Your task to perform on an android device: add a label to a message in the gmail app Image 0: 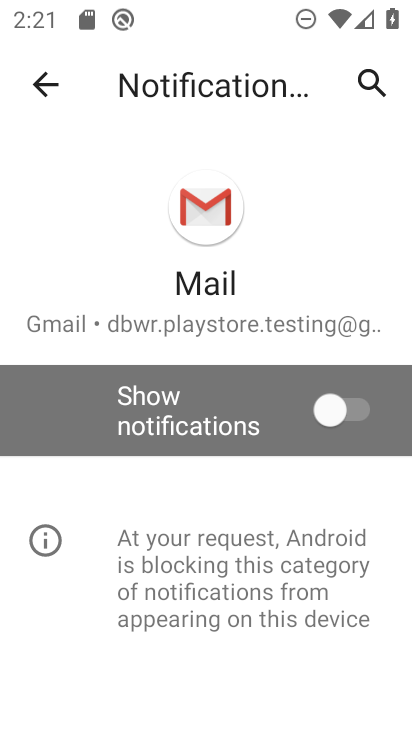
Step 0: press home button
Your task to perform on an android device: add a label to a message in the gmail app Image 1: 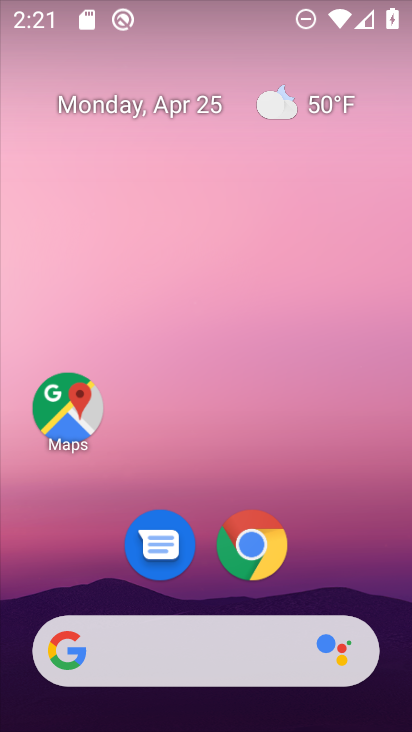
Step 1: drag from (315, 580) to (214, 95)
Your task to perform on an android device: add a label to a message in the gmail app Image 2: 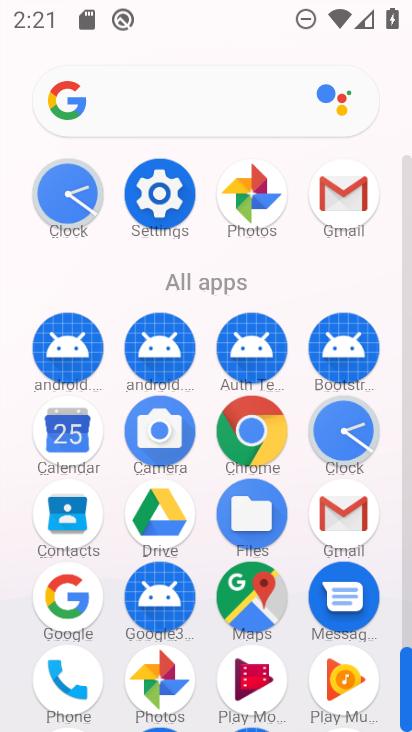
Step 2: click (350, 201)
Your task to perform on an android device: add a label to a message in the gmail app Image 3: 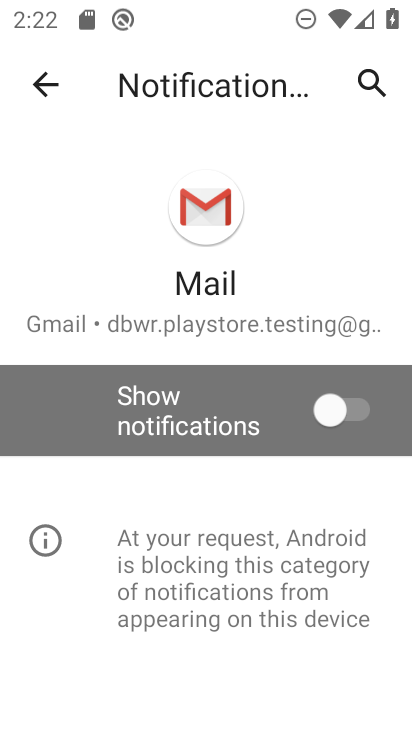
Step 3: click (38, 84)
Your task to perform on an android device: add a label to a message in the gmail app Image 4: 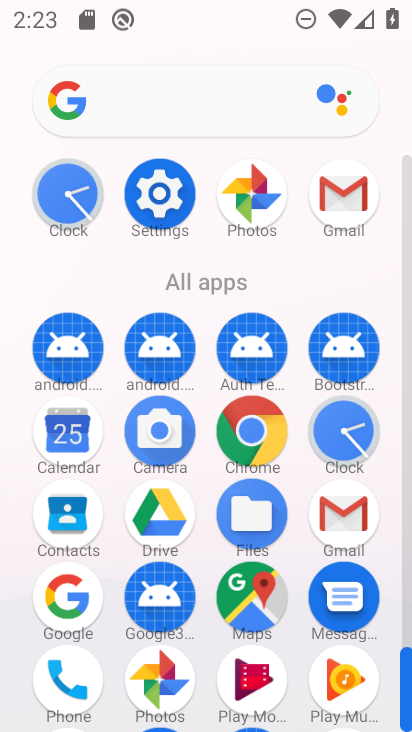
Step 4: click (337, 520)
Your task to perform on an android device: add a label to a message in the gmail app Image 5: 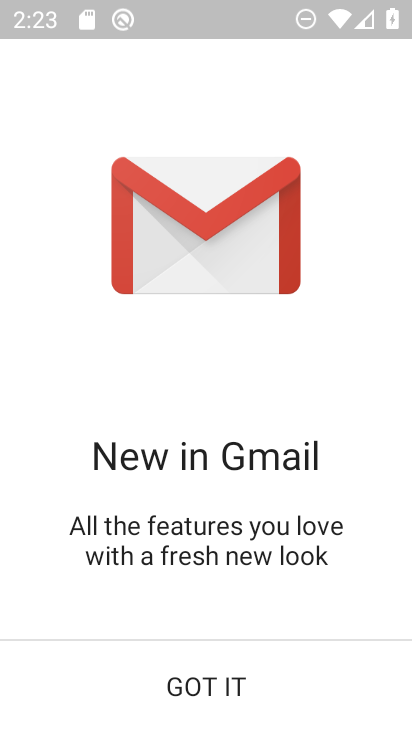
Step 5: click (197, 690)
Your task to perform on an android device: add a label to a message in the gmail app Image 6: 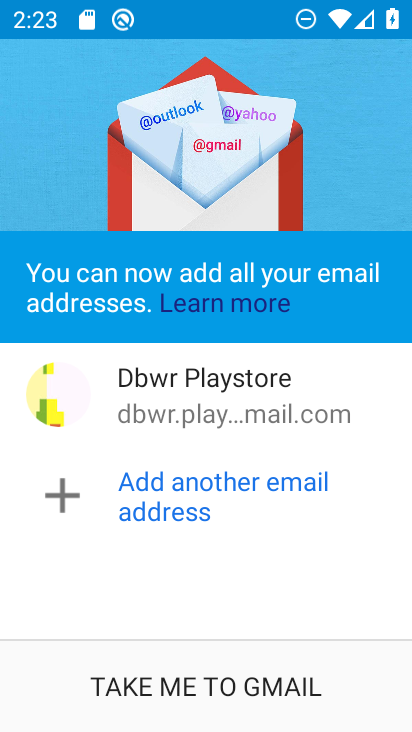
Step 6: click (197, 690)
Your task to perform on an android device: add a label to a message in the gmail app Image 7: 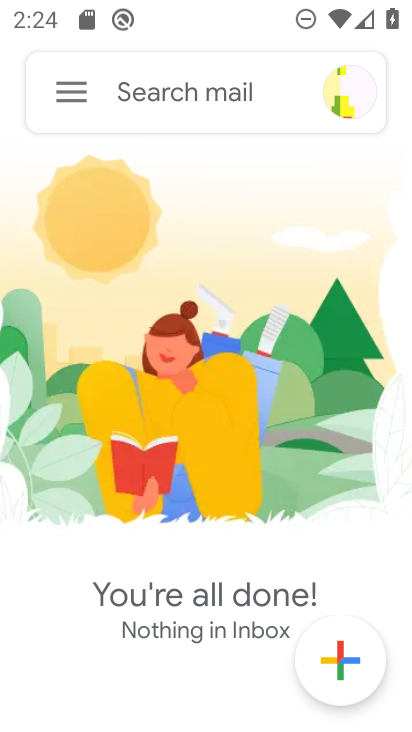
Step 7: task complete